Your task to perform on an android device: Is it going to rain this weekend? Image 0: 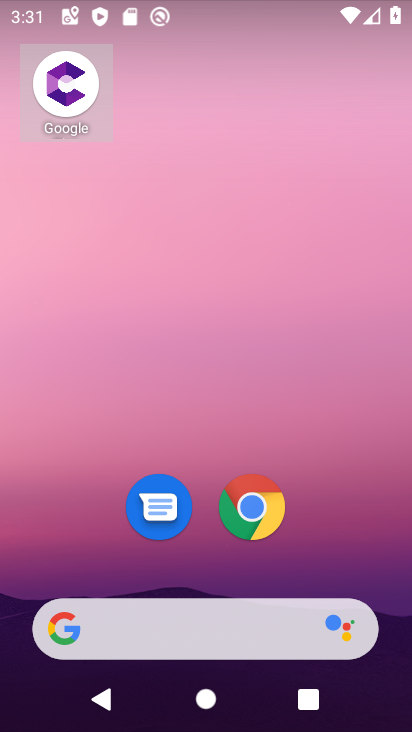
Step 0: click (335, 527)
Your task to perform on an android device: Is it going to rain this weekend? Image 1: 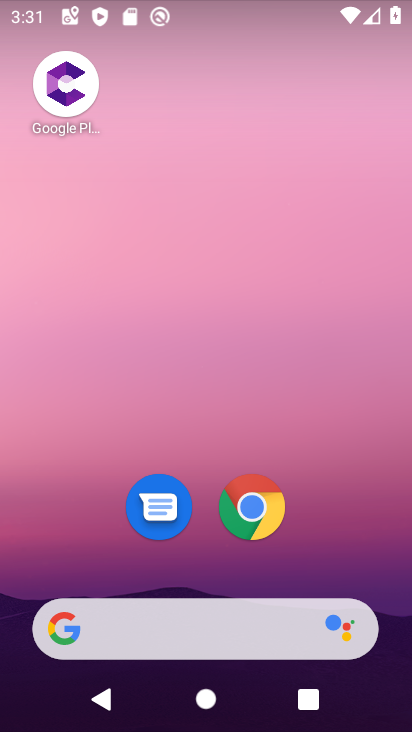
Step 1: click (270, 516)
Your task to perform on an android device: Is it going to rain this weekend? Image 2: 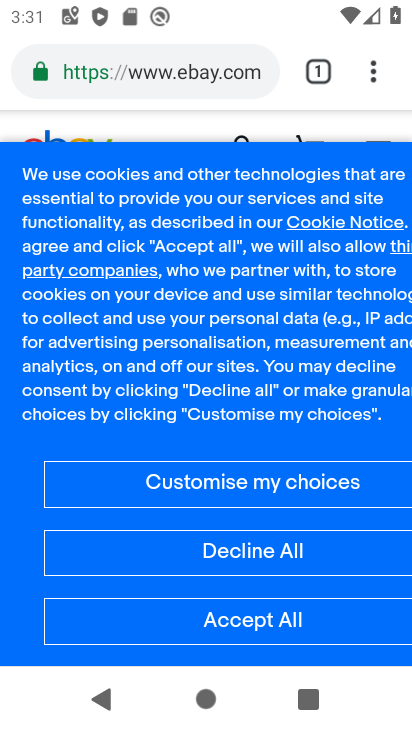
Step 2: click (181, 62)
Your task to perform on an android device: Is it going to rain this weekend? Image 3: 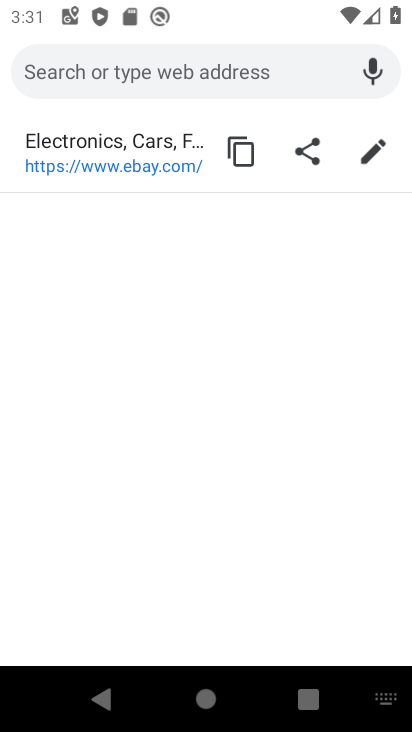
Step 3: type "weather"
Your task to perform on an android device: Is it going to rain this weekend? Image 4: 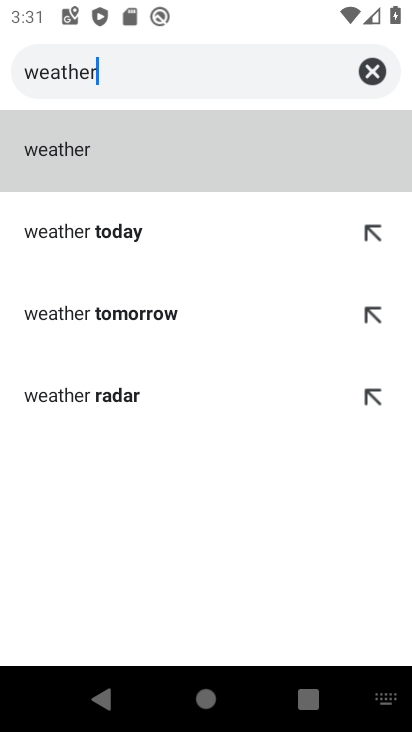
Step 4: click (58, 151)
Your task to perform on an android device: Is it going to rain this weekend? Image 5: 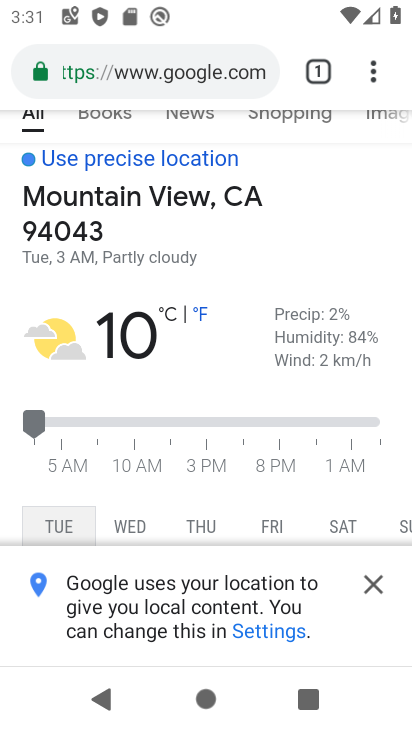
Step 5: drag from (246, 489) to (292, 132)
Your task to perform on an android device: Is it going to rain this weekend? Image 6: 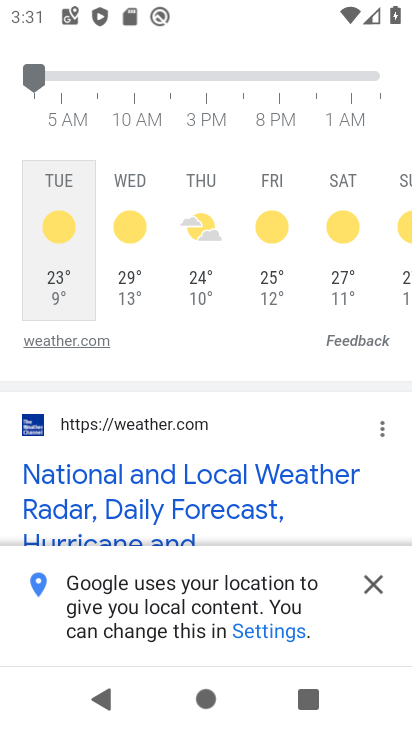
Step 6: drag from (239, 493) to (251, 320)
Your task to perform on an android device: Is it going to rain this weekend? Image 7: 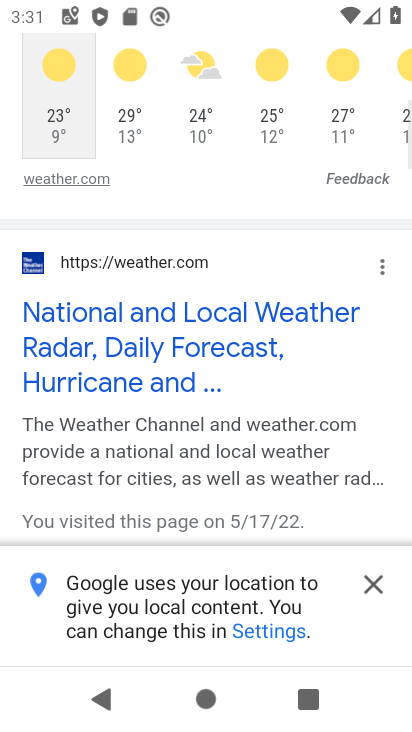
Step 7: click (100, 175)
Your task to perform on an android device: Is it going to rain this weekend? Image 8: 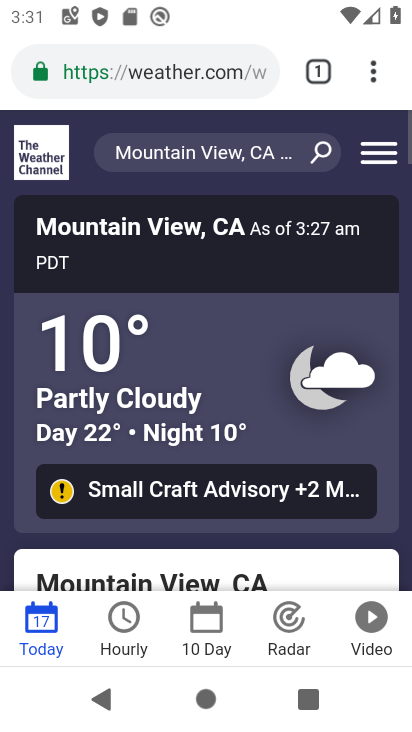
Step 8: task complete